Your task to perform on an android device: turn off picture-in-picture Image 0: 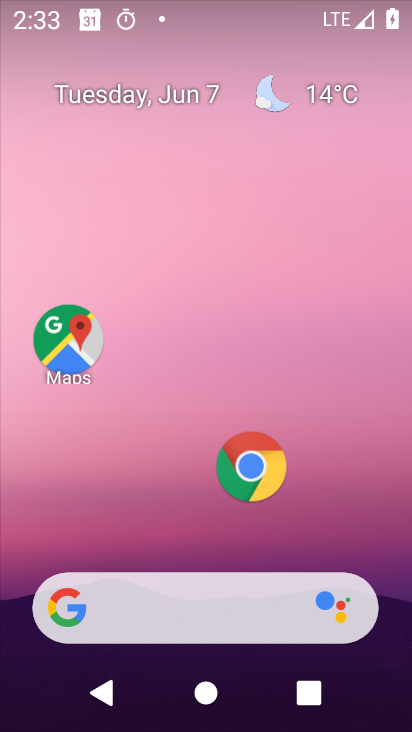
Step 0: click (261, 469)
Your task to perform on an android device: turn off picture-in-picture Image 1: 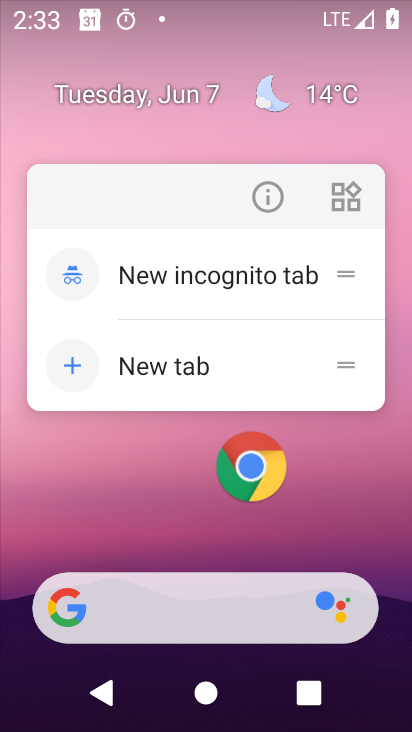
Step 1: click (257, 203)
Your task to perform on an android device: turn off picture-in-picture Image 2: 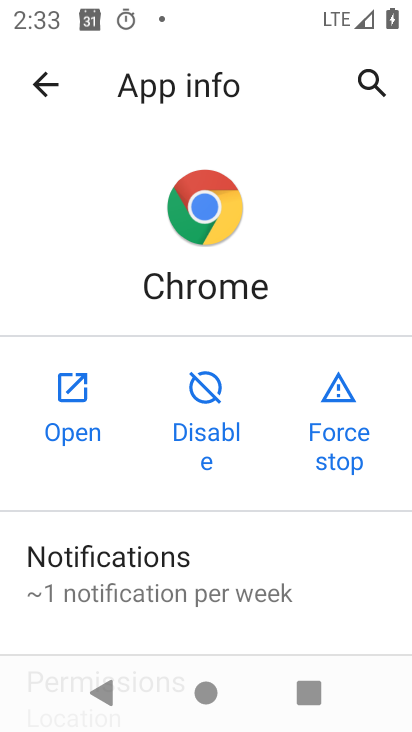
Step 2: drag from (298, 551) to (305, 129)
Your task to perform on an android device: turn off picture-in-picture Image 3: 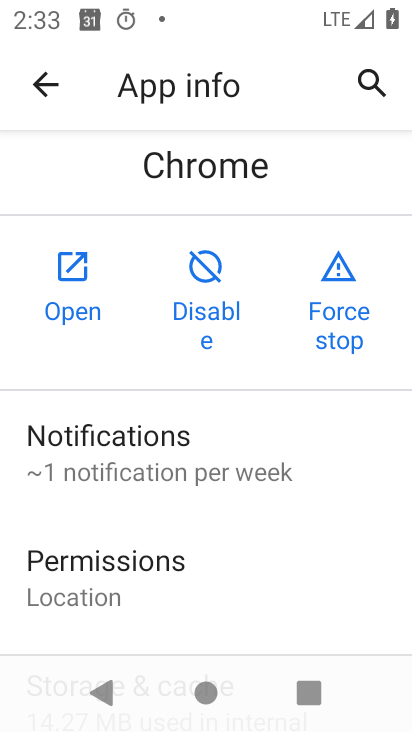
Step 3: drag from (250, 576) to (294, 278)
Your task to perform on an android device: turn off picture-in-picture Image 4: 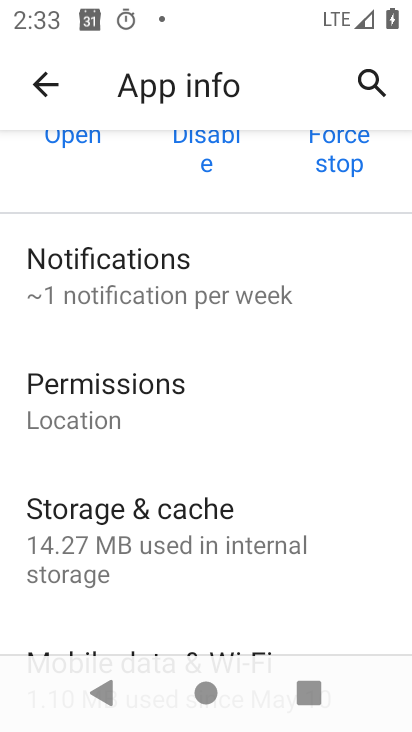
Step 4: drag from (252, 592) to (296, 247)
Your task to perform on an android device: turn off picture-in-picture Image 5: 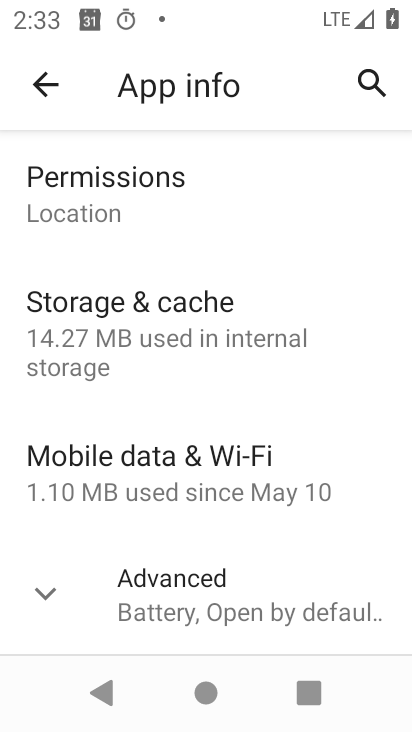
Step 5: click (186, 590)
Your task to perform on an android device: turn off picture-in-picture Image 6: 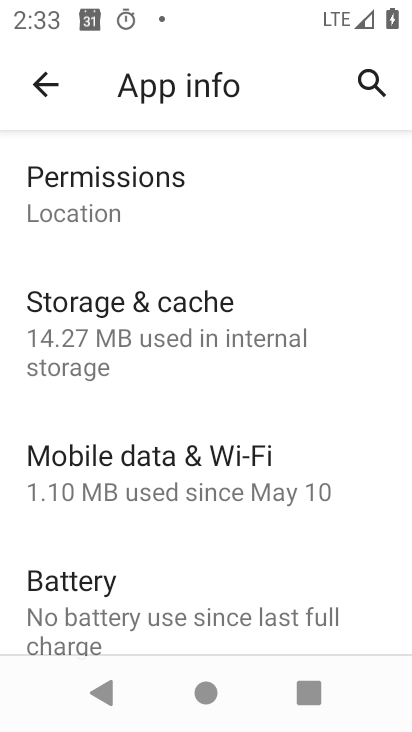
Step 6: drag from (265, 597) to (307, 327)
Your task to perform on an android device: turn off picture-in-picture Image 7: 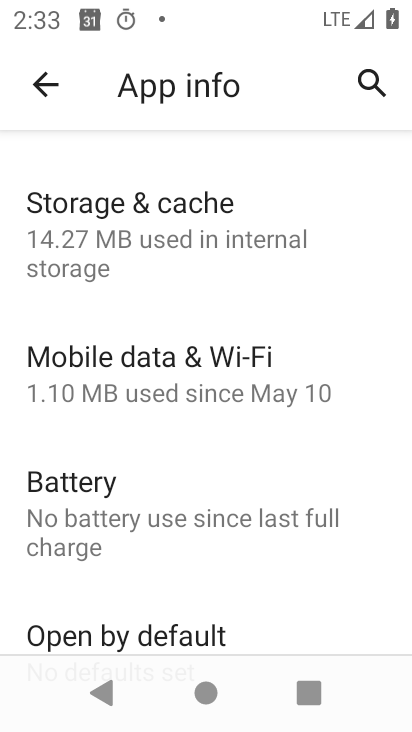
Step 7: drag from (222, 585) to (278, 337)
Your task to perform on an android device: turn off picture-in-picture Image 8: 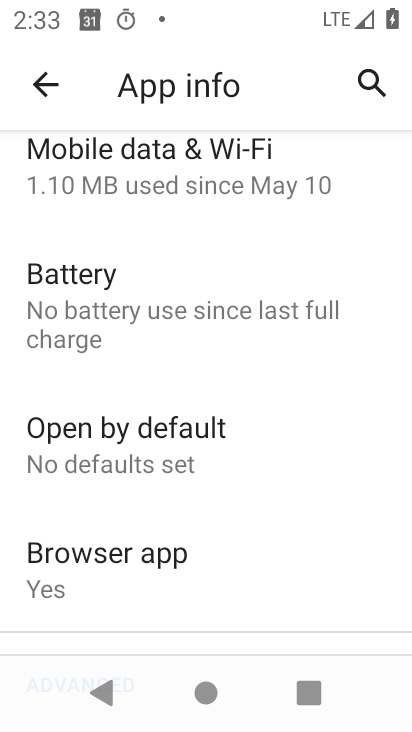
Step 8: drag from (224, 555) to (288, 260)
Your task to perform on an android device: turn off picture-in-picture Image 9: 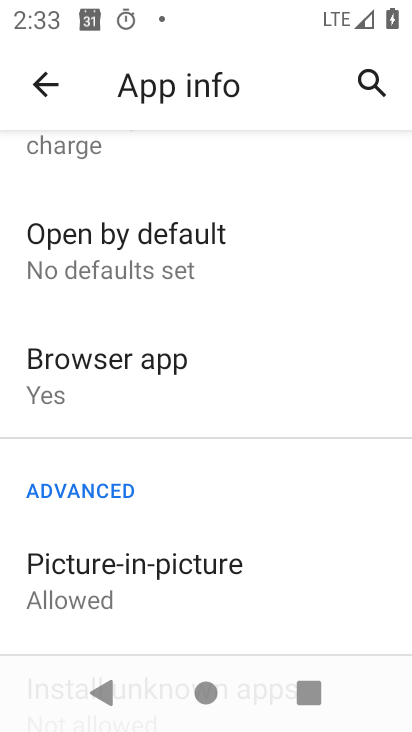
Step 9: click (213, 576)
Your task to perform on an android device: turn off picture-in-picture Image 10: 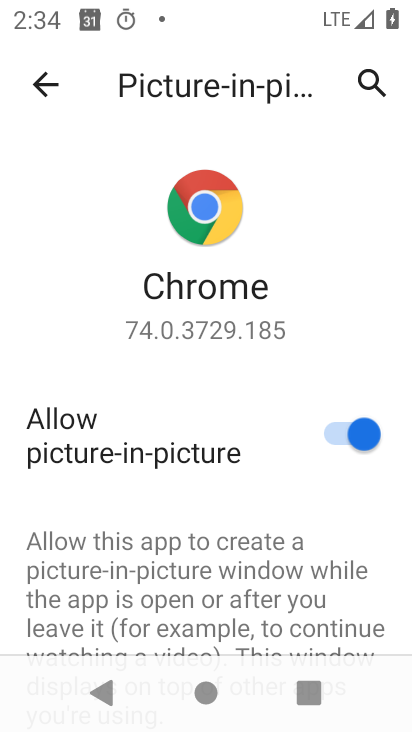
Step 10: click (361, 434)
Your task to perform on an android device: turn off picture-in-picture Image 11: 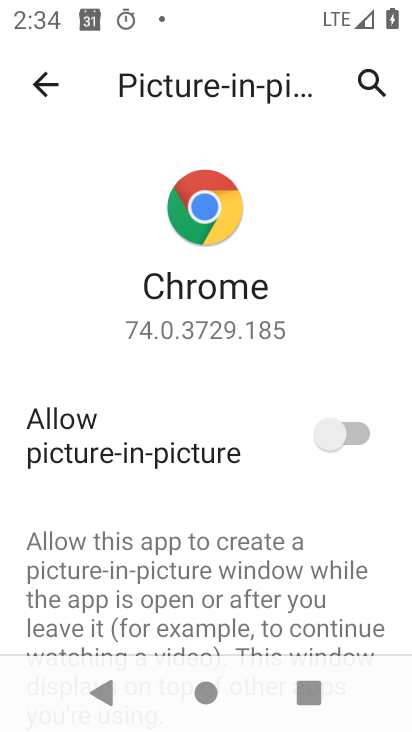
Step 11: task complete